Your task to perform on an android device: Open Chrome and go to the settings page Image 0: 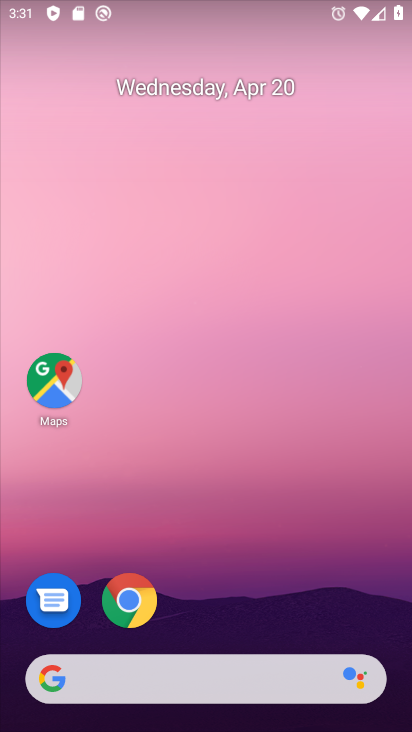
Step 0: drag from (264, 413) to (271, 282)
Your task to perform on an android device: Open Chrome and go to the settings page Image 1: 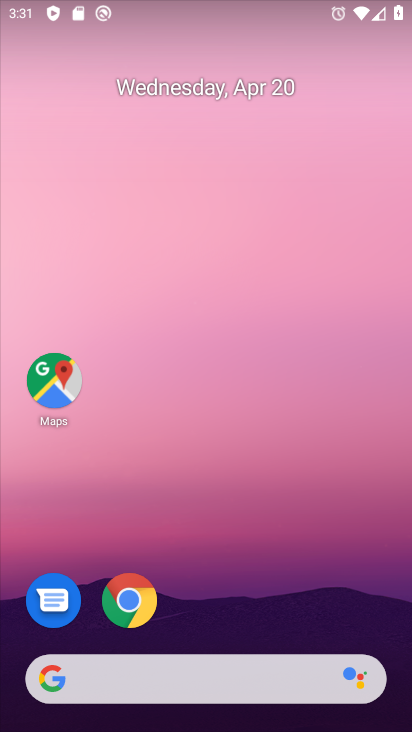
Step 1: drag from (237, 331) to (239, 260)
Your task to perform on an android device: Open Chrome and go to the settings page Image 2: 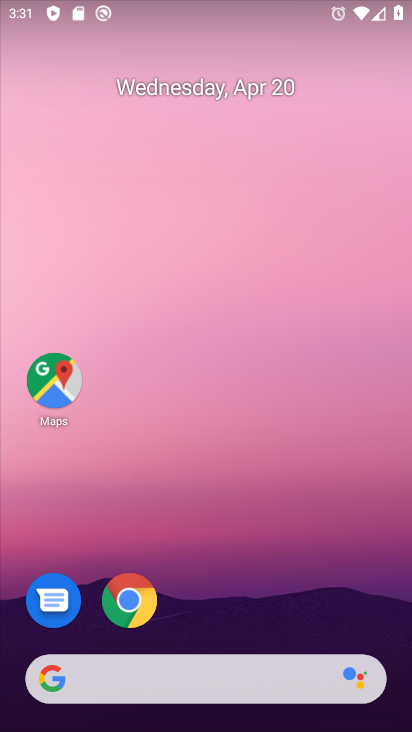
Step 2: drag from (247, 649) to (275, 101)
Your task to perform on an android device: Open Chrome and go to the settings page Image 3: 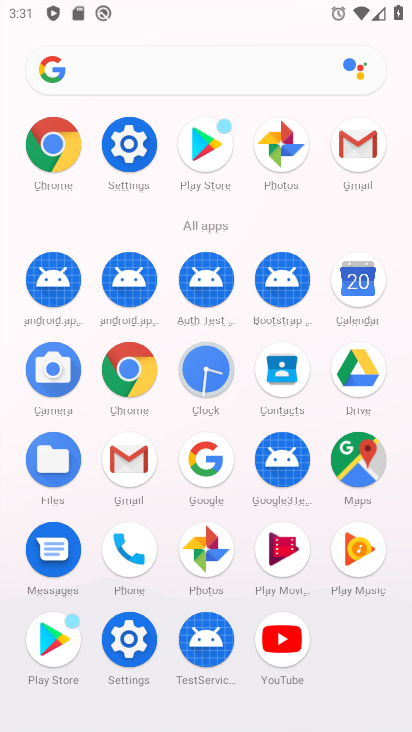
Step 3: click (61, 139)
Your task to perform on an android device: Open Chrome and go to the settings page Image 4: 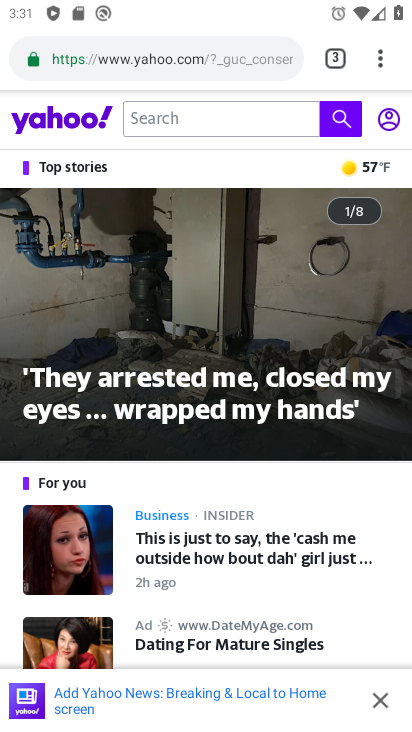
Step 4: click (389, 50)
Your task to perform on an android device: Open Chrome and go to the settings page Image 5: 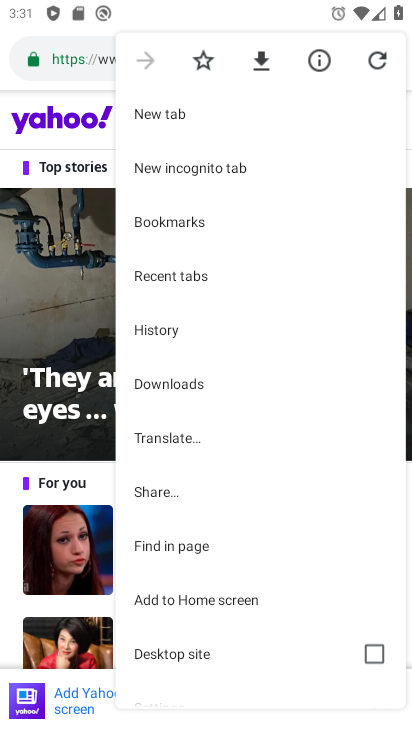
Step 5: drag from (233, 539) to (290, 201)
Your task to perform on an android device: Open Chrome and go to the settings page Image 6: 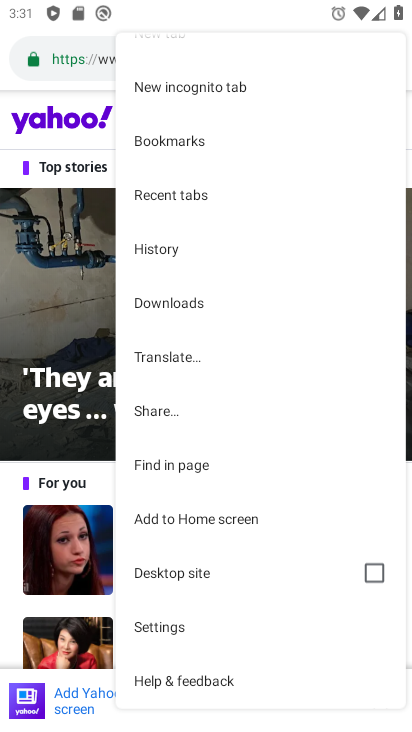
Step 6: click (181, 626)
Your task to perform on an android device: Open Chrome and go to the settings page Image 7: 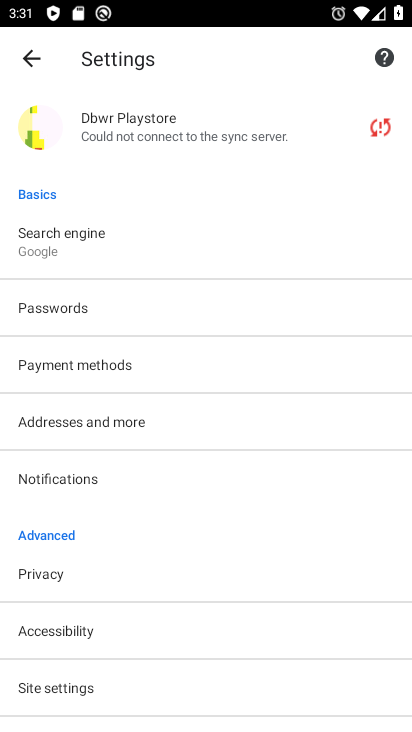
Step 7: task complete